Your task to perform on an android device: Open the Play Movies app and select the watchlist tab. Image 0: 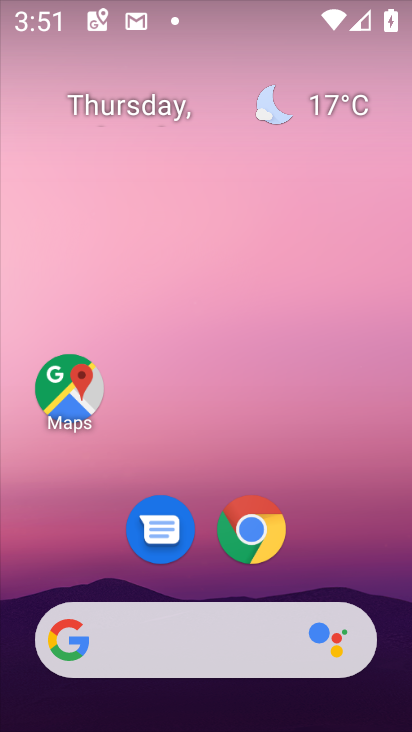
Step 0: drag from (178, 384) to (144, 149)
Your task to perform on an android device: Open the Play Movies app and select the watchlist tab. Image 1: 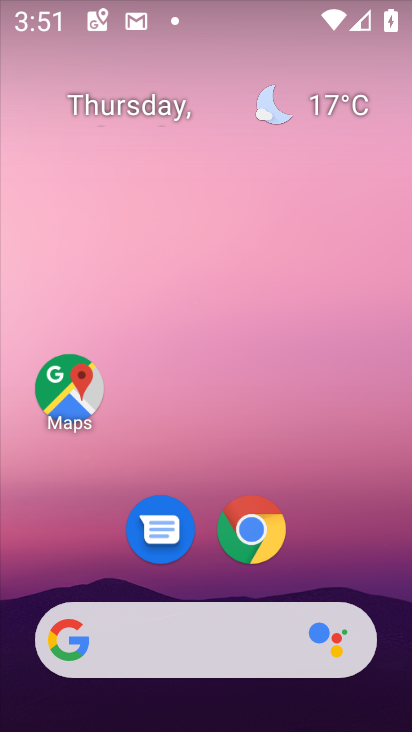
Step 1: drag from (169, 579) to (164, 69)
Your task to perform on an android device: Open the Play Movies app and select the watchlist tab. Image 2: 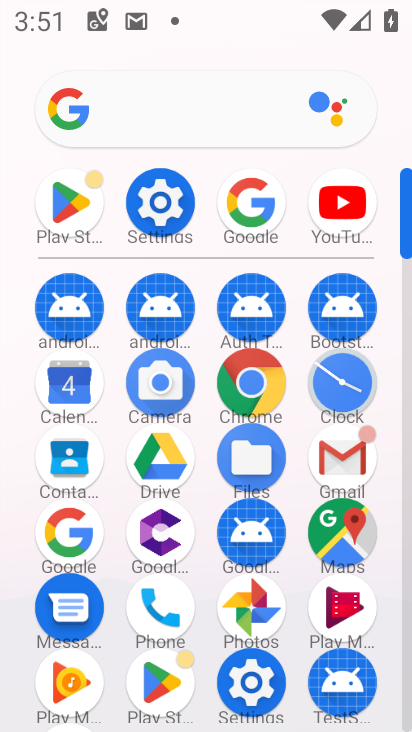
Step 2: click (339, 623)
Your task to perform on an android device: Open the Play Movies app and select the watchlist tab. Image 3: 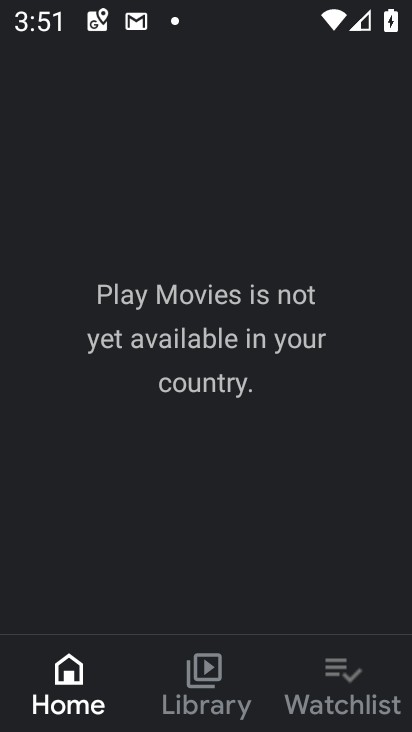
Step 3: click (341, 678)
Your task to perform on an android device: Open the Play Movies app and select the watchlist tab. Image 4: 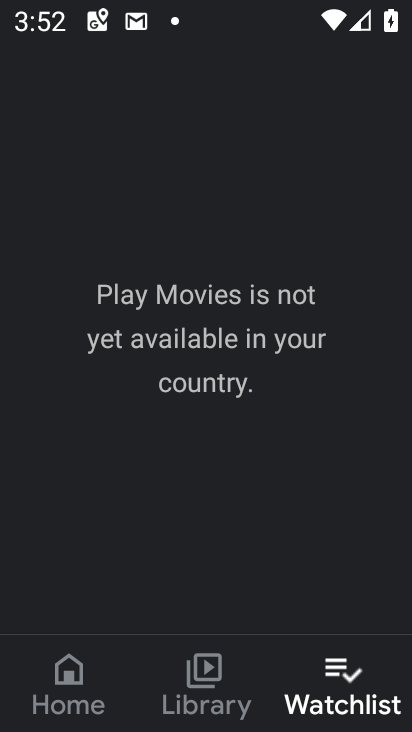
Step 4: task complete